Your task to perform on an android device: Open Google Image 0: 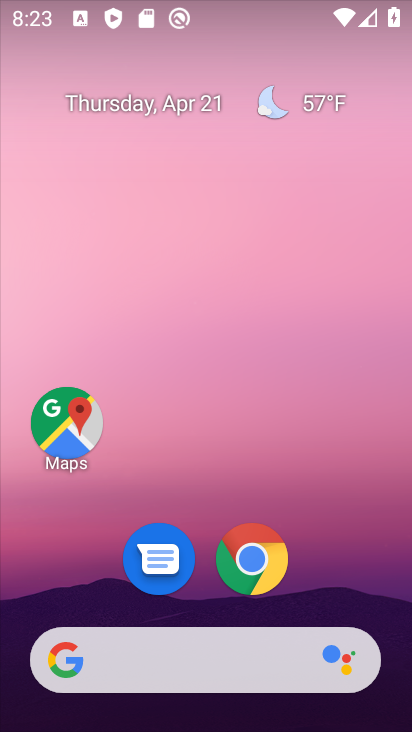
Step 0: click (259, 553)
Your task to perform on an android device: Open Google Image 1: 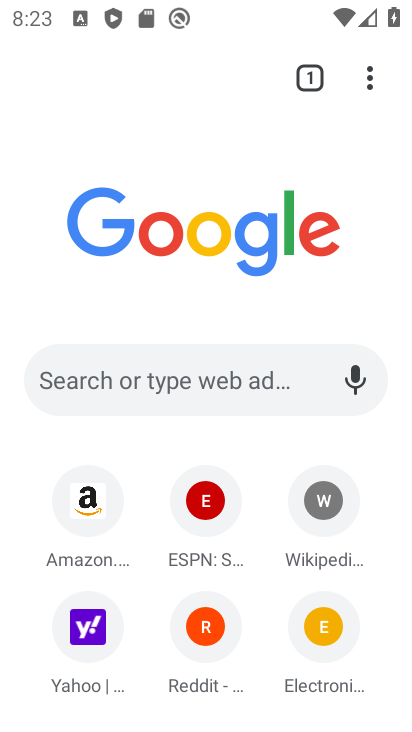
Step 1: press home button
Your task to perform on an android device: Open Google Image 2: 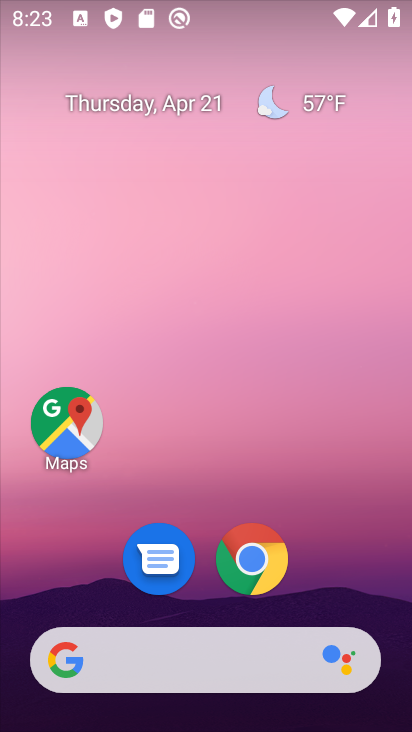
Step 2: drag from (251, 711) to (260, 56)
Your task to perform on an android device: Open Google Image 3: 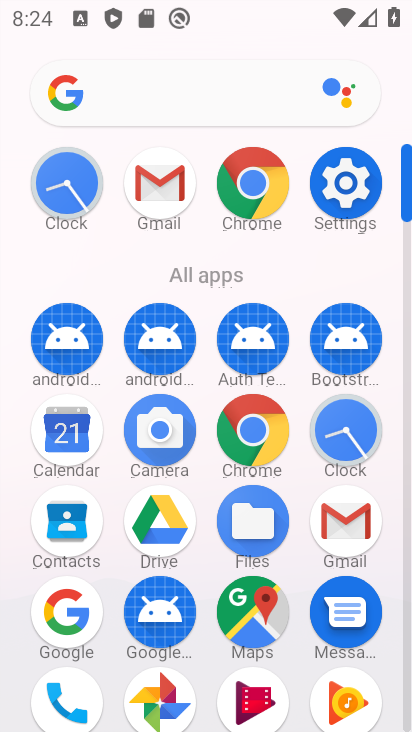
Step 3: click (63, 617)
Your task to perform on an android device: Open Google Image 4: 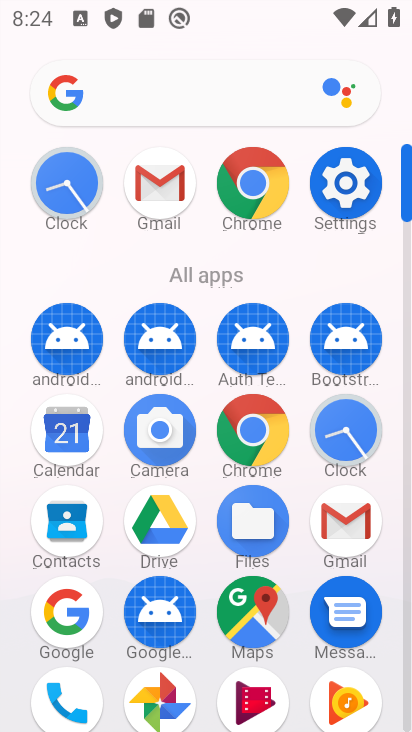
Step 4: click (63, 617)
Your task to perform on an android device: Open Google Image 5: 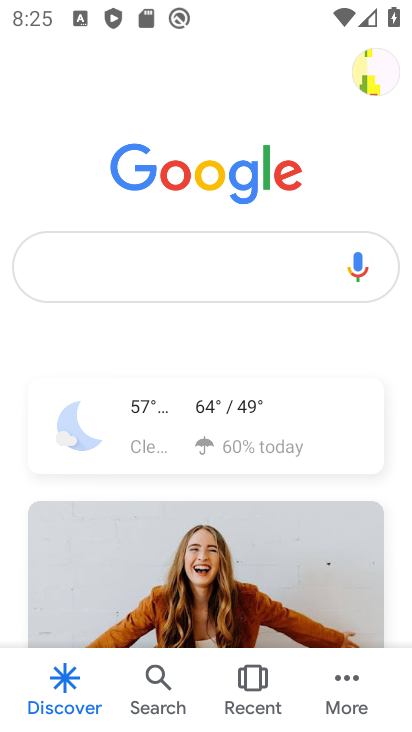
Step 5: task complete